Your task to perform on an android device: Open Maps and search for coffee Image 0: 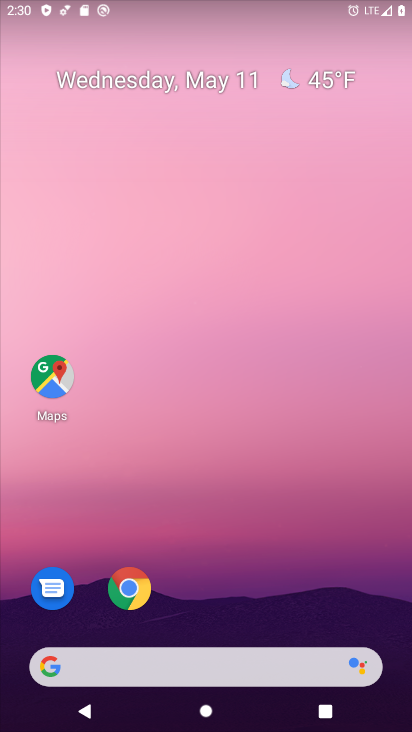
Step 0: click (45, 376)
Your task to perform on an android device: Open Maps and search for coffee Image 1: 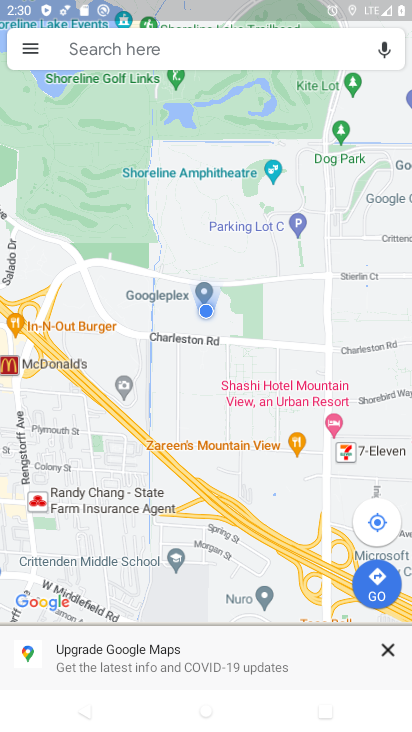
Step 1: click (29, 44)
Your task to perform on an android device: Open Maps and search for coffee Image 2: 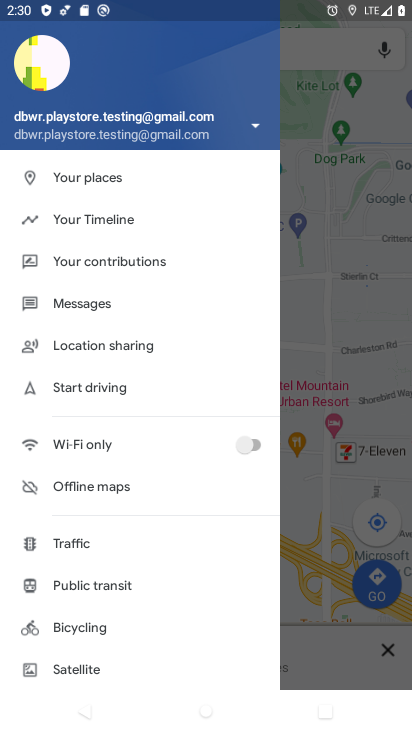
Step 2: click (299, 253)
Your task to perform on an android device: Open Maps and search for coffee Image 3: 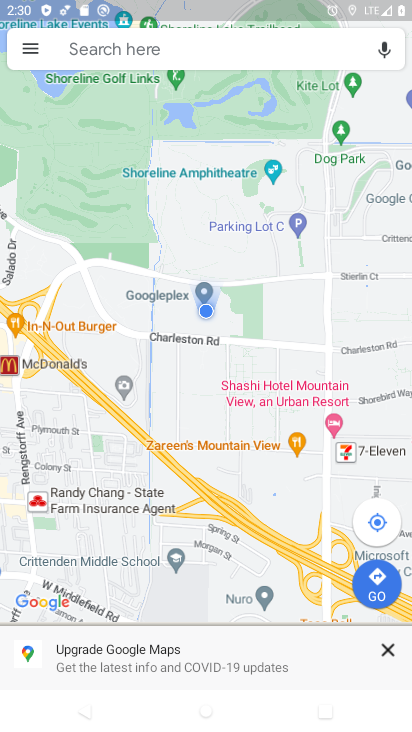
Step 3: click (235, 62)
Your task to perform on an android device: Open Maps and search for coffee Image 4: 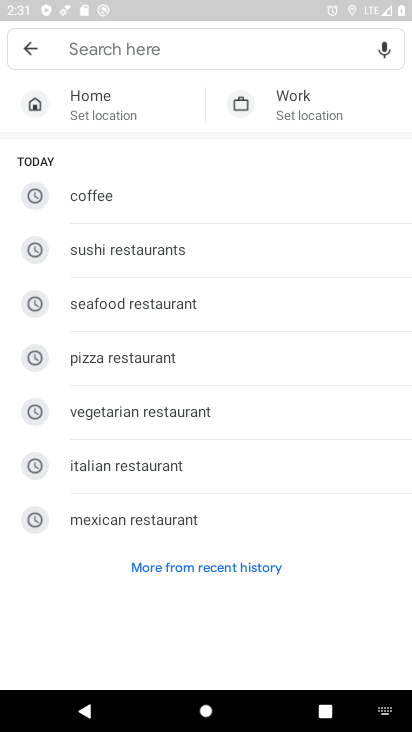
Step 4: type "coffee"
Your task to perform on an android device: Open Maps and search for coffee Image 5: 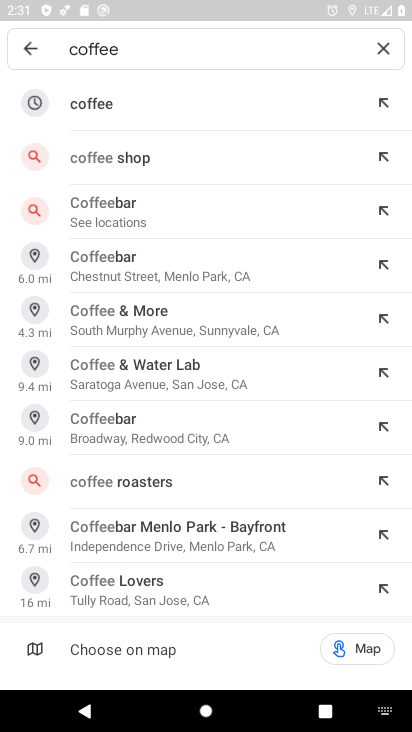
Step 5: click (185, 118)
Your task to perform on an android device: Open Maps and search for coffee Image 6: 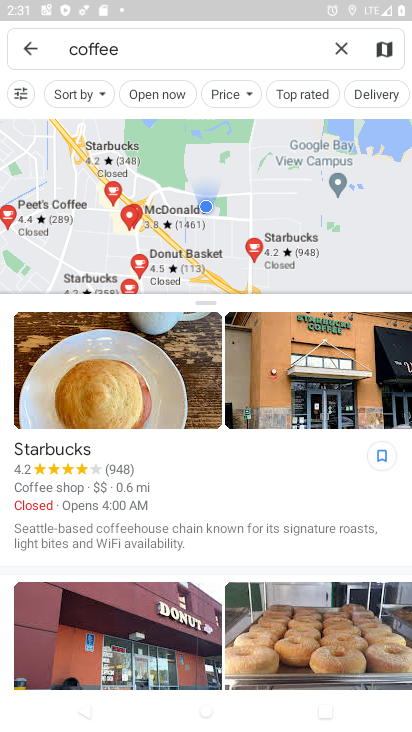
Step 6: task complete